Your task to perform on an android device: turn smart compose on in the gmail app Image 0: 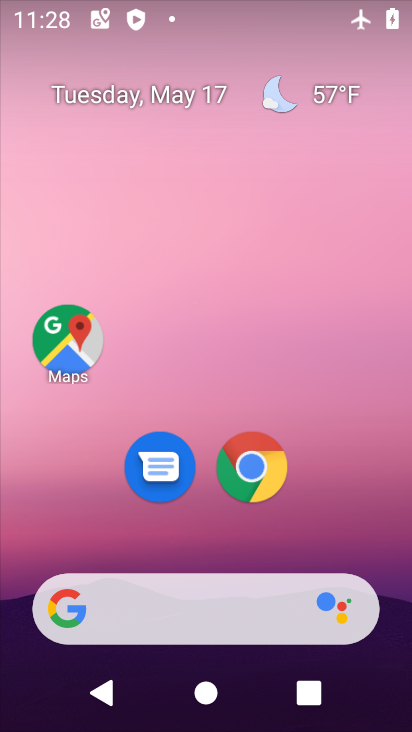
Step 0: drag from (230, 645) to (293, 156)
Your task to perform on an android device: turn smart compose on in the gmail app Image 1: 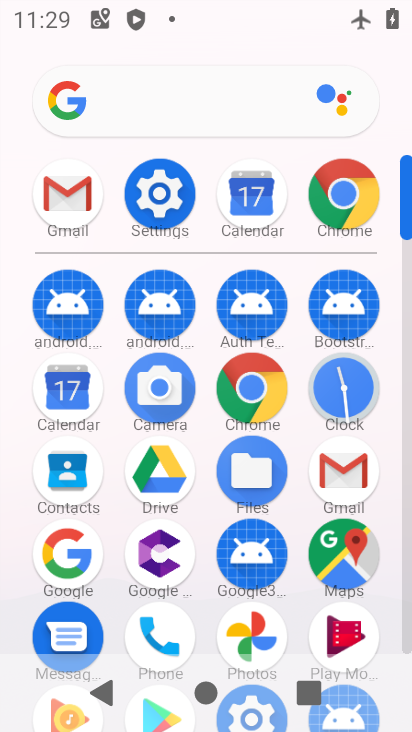
Step 1: click (78, 216)
Your task to perform on an android device: turn smart compose on in the gmail app Image 2: 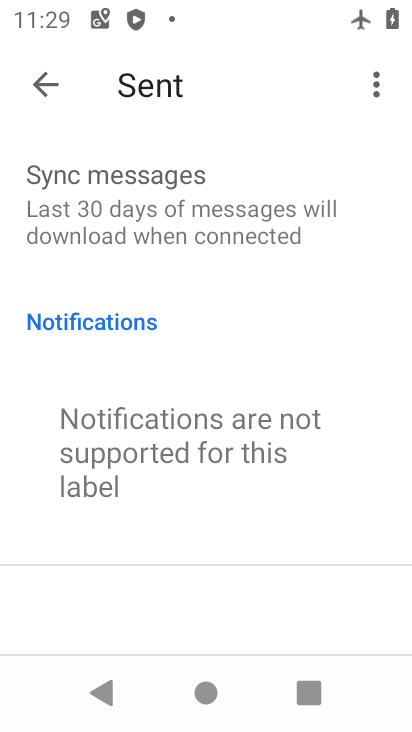
Step 2: click (39, 79)
Your task to perform on an android device: turn smart compose on in the gmail app Image 3: 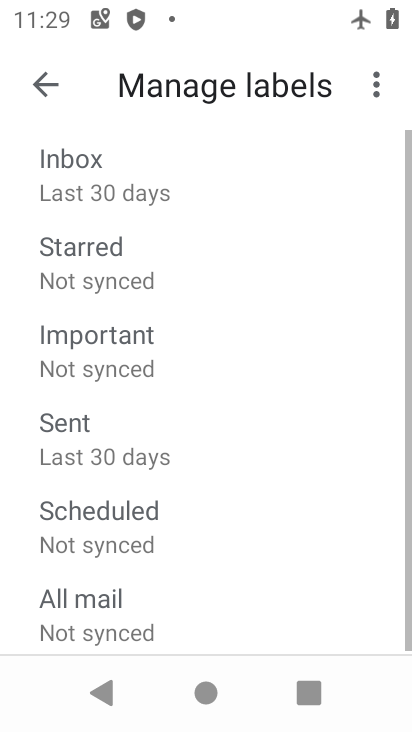
Step 3: click (40, 79)
Your task to perform on an android device: turn smart compose on in the gmail app Image 4: 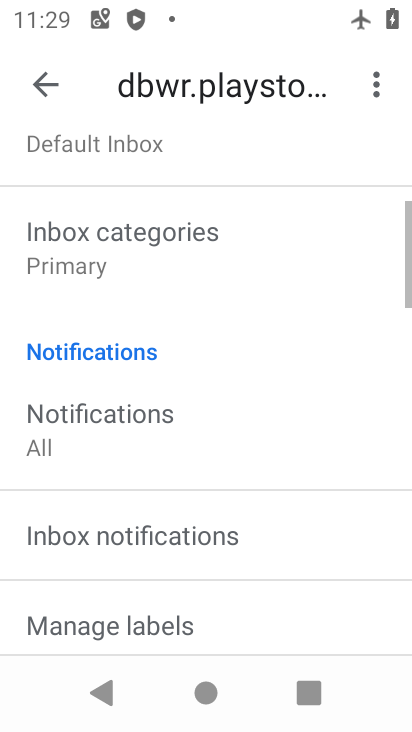
Step 4: drag from (147, 536) to (198, 183)
Your task to perform on an android device: turn smart compose on in the gmail app Image 5: 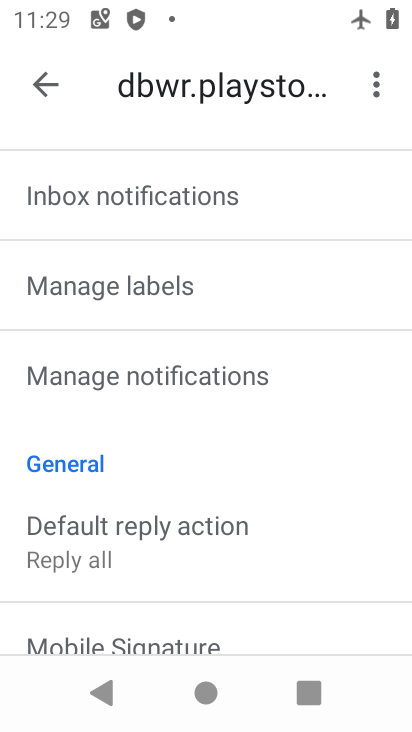
Step 5: drag from (231, 516) to (284, 177)
Your task to perform on an android device: turn smart compose on in the gmail app Image 6: 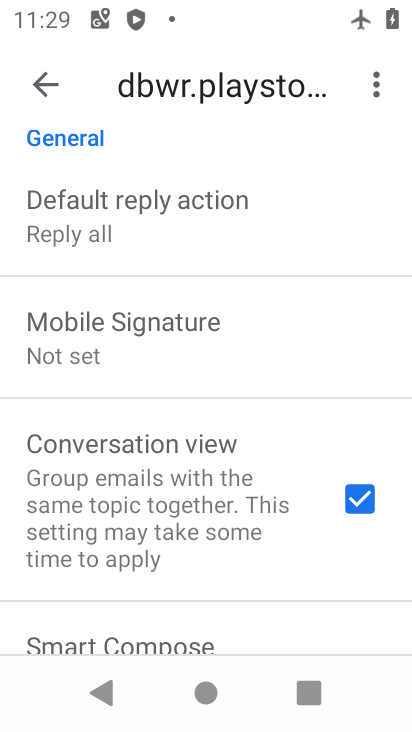
Step 6: drag from (242, 431) to (290, 233)
Your task to perform on an android device: turn smart compose on in the gmail app Image 7: 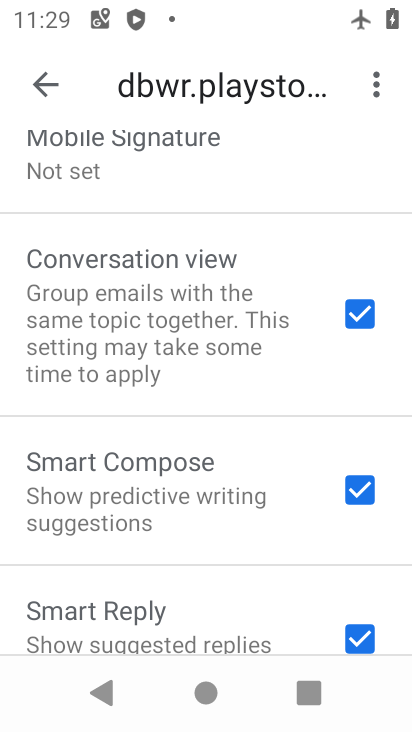
Step 7: click (343, 497)
Your task to perform on an android device: turn smart compose on in the gmail app Image 8: 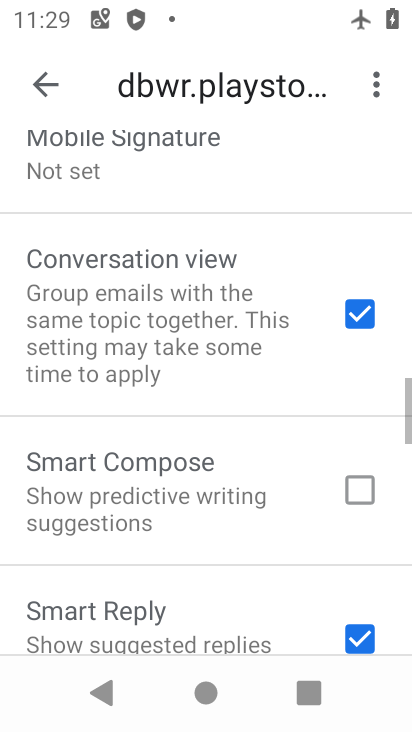
Step 8: click (348, 512)
Your task to perform on an android device: turn smart compose on in the gmail app Image 9: 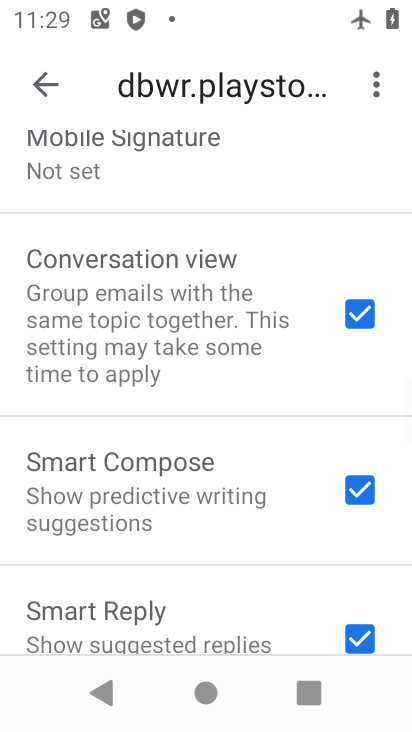
Step 9: task complete